Your task to perform on an android device: Open ESPN.com Image 0: 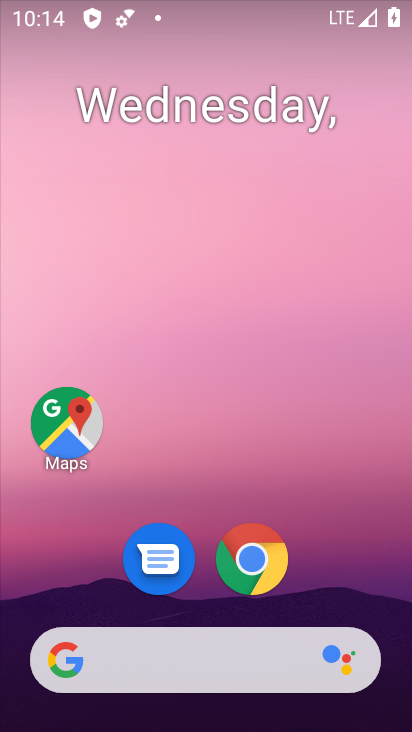
Step 0: click (261, 556)
Your task to perform on an android device: Open ESPN.com Image 1: 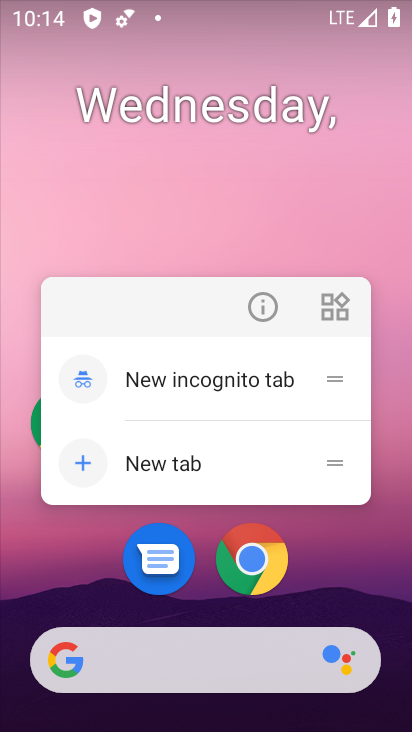
Step 1: click (261, 556)
Your task to perform on an android device: Open ESPN.com Image 2: 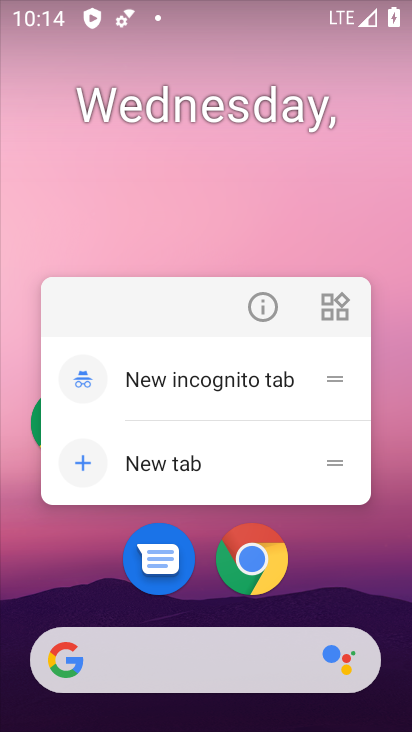
Step 2: click (261, 556)
Your task to perform on an android device: Open ESPN.com Image 3: 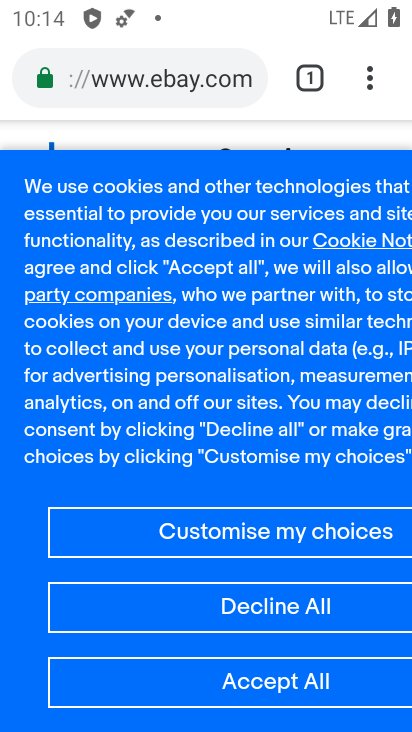
Step 3: click (182, 57)
Your task to perform on an android device: Open ESPN.com Image 4: 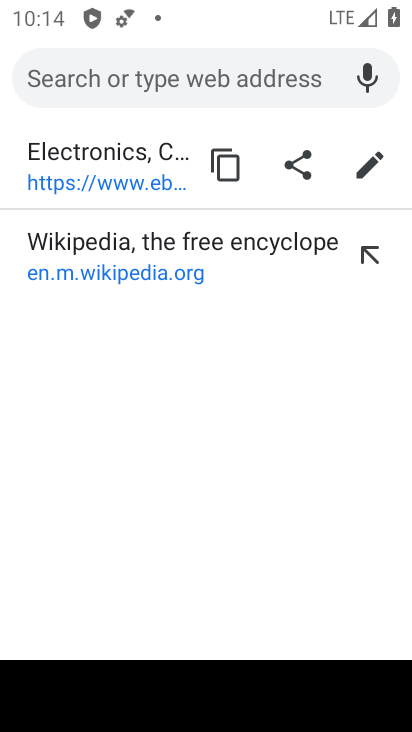
Step 4: type "espn.com"
Your task to perform on an android device: Open ESPN.com Image 5: 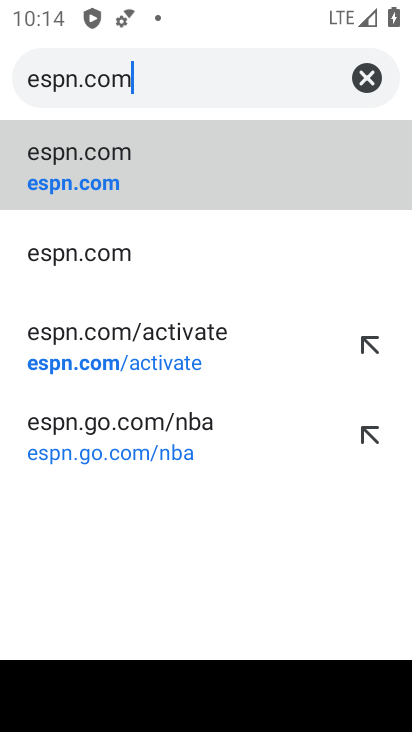
Step 5: click (73, 176)
Your task to perform on an android device: Open ESPN.com Image 6: 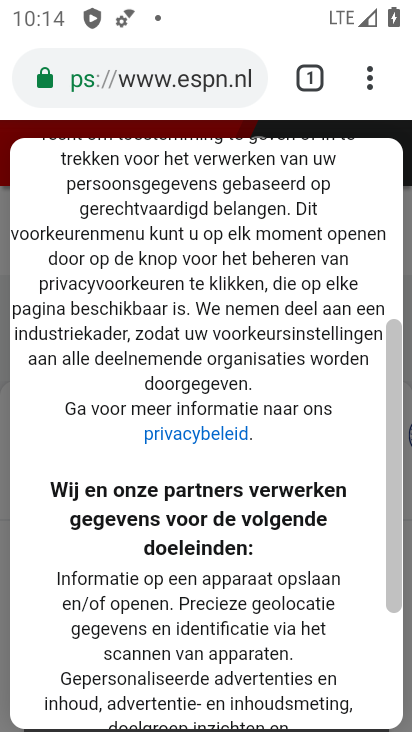
Step 6: task complete